Your task to perform on an android device: refresh tabs in the chrome app Image 0: 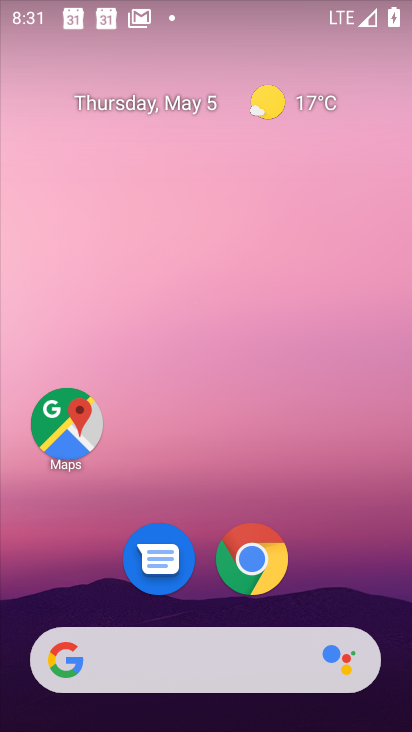
Step 0: click (255, 566)
Your task to perform on an android device: refresh tabs in the chrome app Image 1: 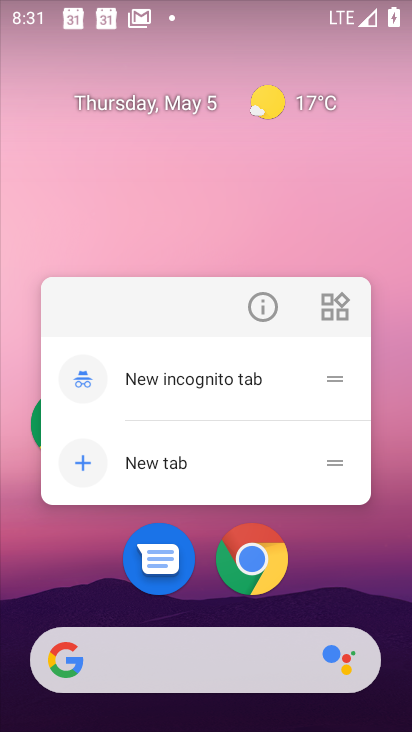
Step 1: click (255, 576)
Your task to perform on an android device: refresh tabs in the chrome app Image 2: 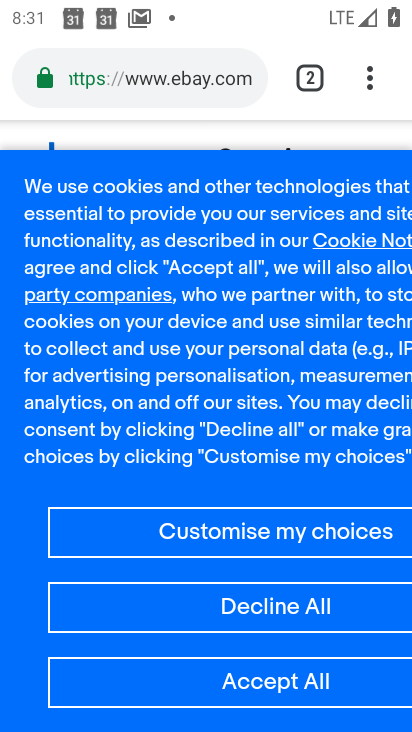
Step 2: click (370, 81)
Your task to perform on an android device: refresh tabs in the chrome app Image 3: 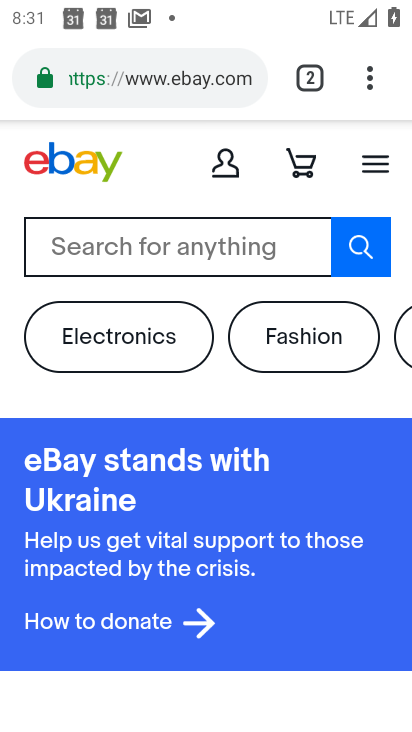
Step 3: click (369, 77)
Your task to perform on an android device: refresh tabs in the chrome app Image 4: 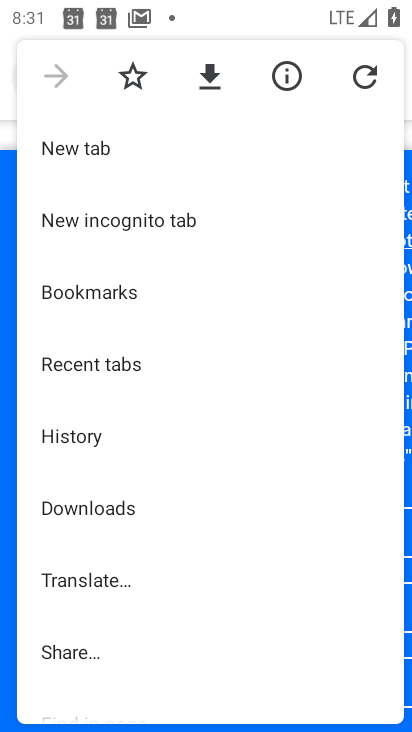
Step 4: click (365, 79)
Your task to perform on an android device: refresh tabs in the chrome app Image 5: 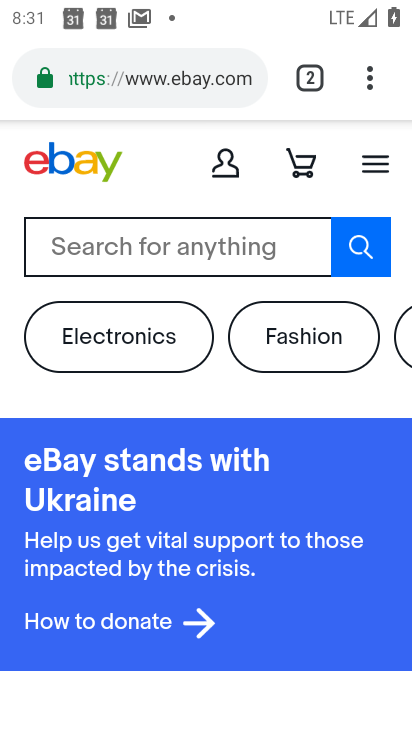
Step 5: task complete